Your task to perform on an android device: Open the map Image 0: 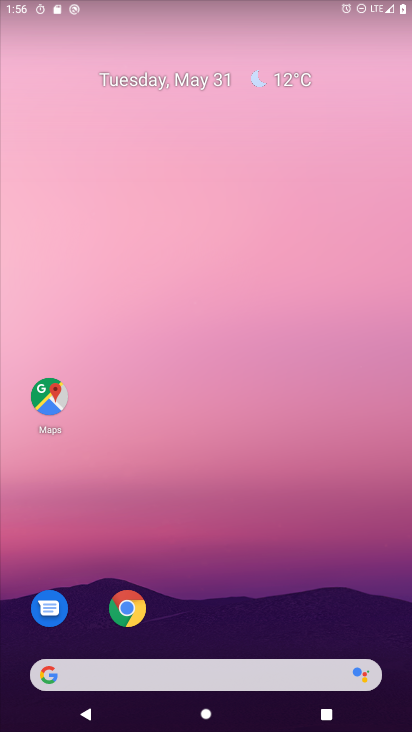
Step 0: click (91, 409)
Your task to perform on an android device: Open the map Image 1: 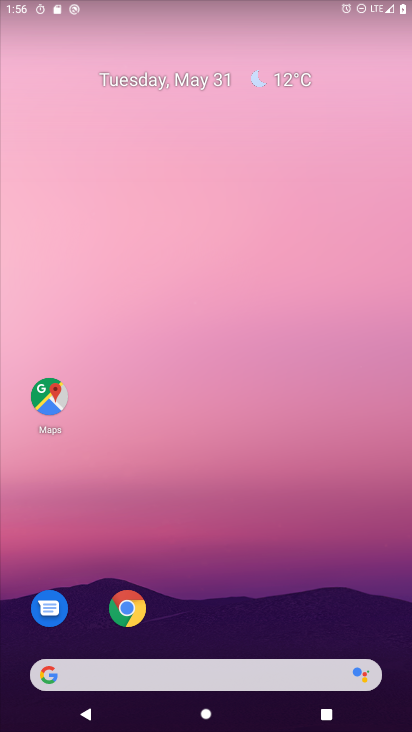
Step 1: click (48, 399)
Your task to perform on an android device: Open the map Image 2: 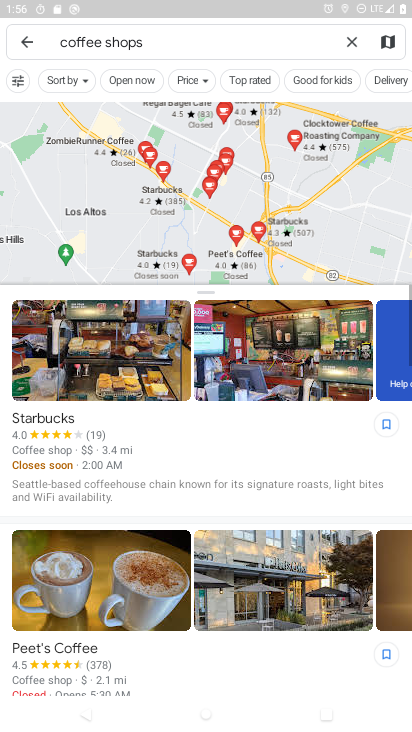
Step 2: task complete